Your task to perform on an android device: Search for sushi restaurants on Maps Image 0: 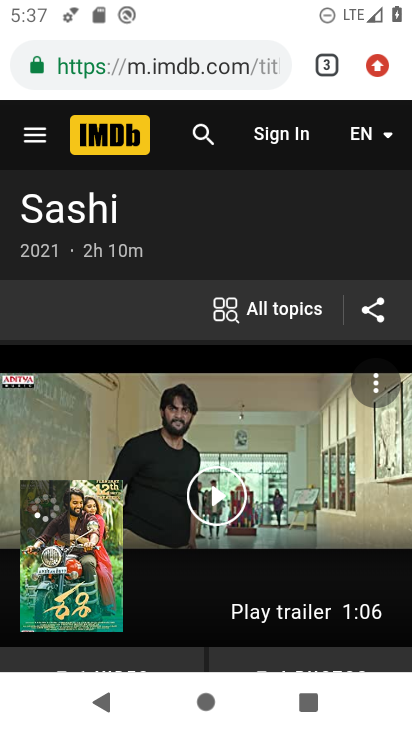
Step 0: press home button
Your task to perform on an android device: Search for sushi restaurants on Maps Image 1: 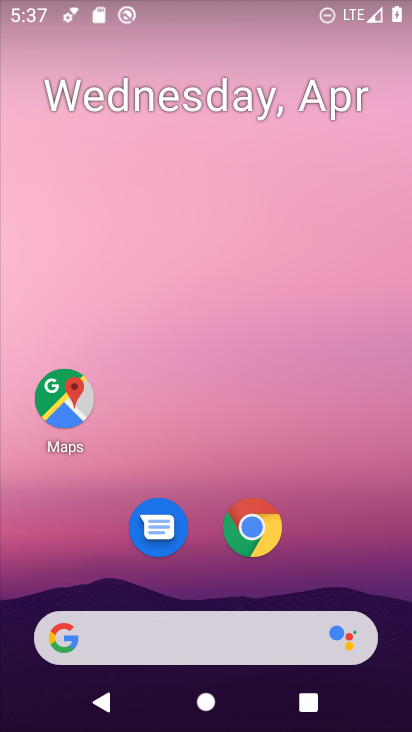
Step 1: click (62, 398)
Your task to perform on an android device: Search for sushi restaurants on Maps Image 2: 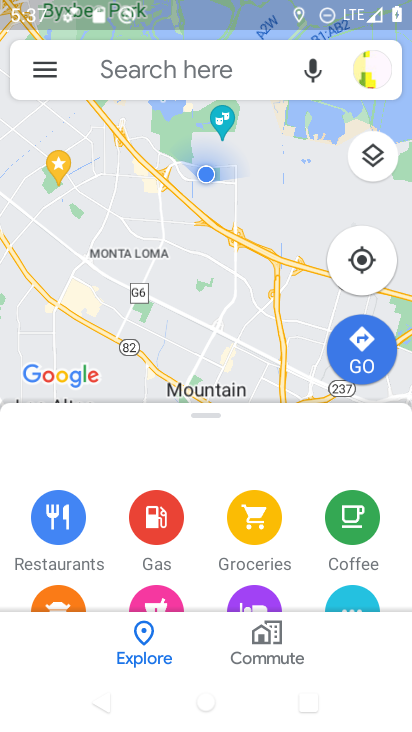
Step 2: click (126, 80)
Your task to perform on an android device: Search for sushi restaurants on Maps Image 3: 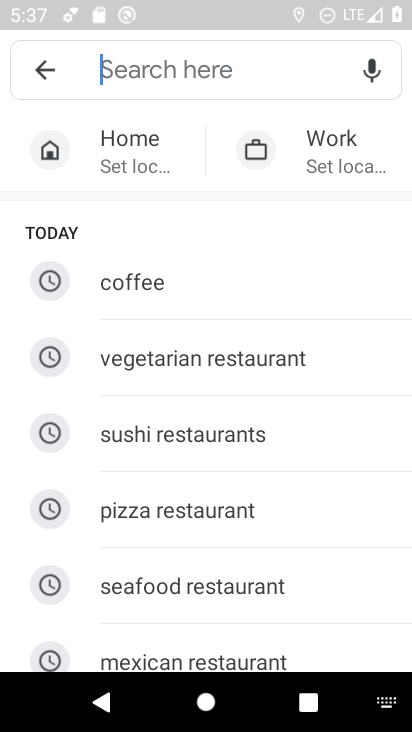
Step 3: type "suahi restaurant"
Your task to perform on an android device: Search for sushi restaurants on Maps Image 4: 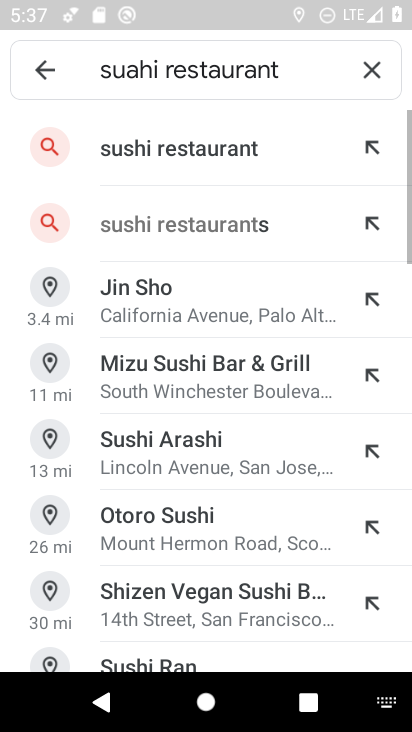
Step 4: click (166, 157)
Your task to perform on an android device: Search for sushi restaurants on Maps Image 5: 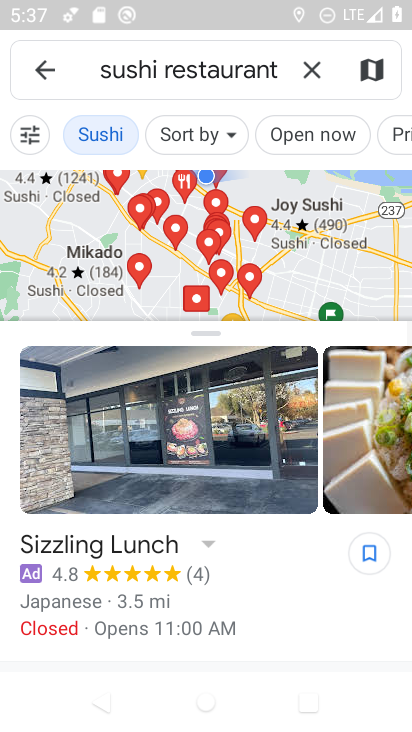
Step 5: task complete